Your task to perform on an android device: toggle notifications settings in the gmail app Image 0: 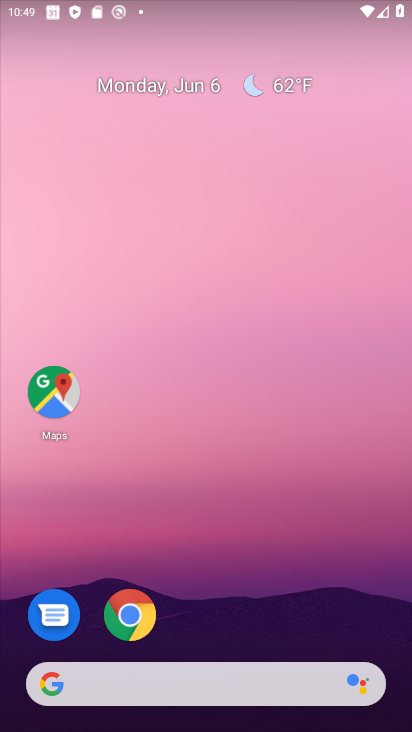
Step 0: drag from (246, 690) to (159, 216)
Your task to perform on an android device: toggle notifications settings in the gmail app Image 1: 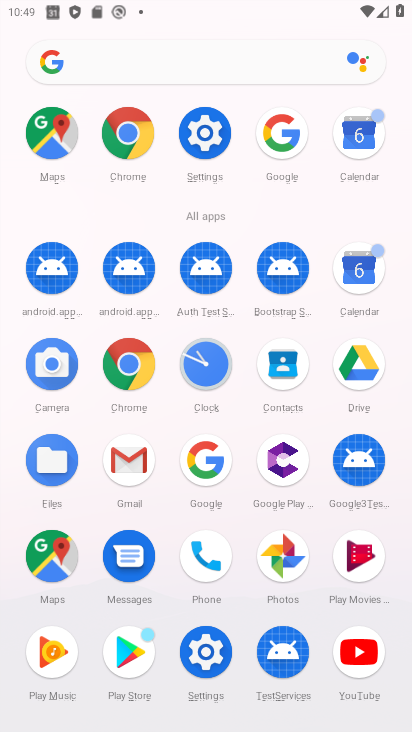
Step 1: click (130, 464)
Your task to perform on an android device: toggle notifications settings in the gmail app Image 2: 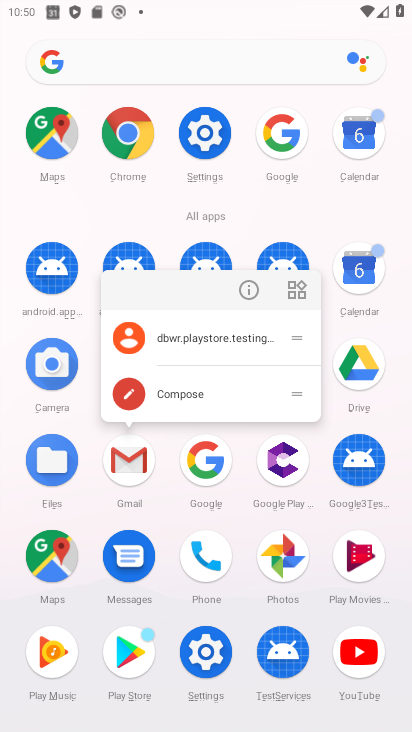
Step 2: click (213, 330)
Your task to perform on an android device: toggle notifications settings in the gmail app Image 3: 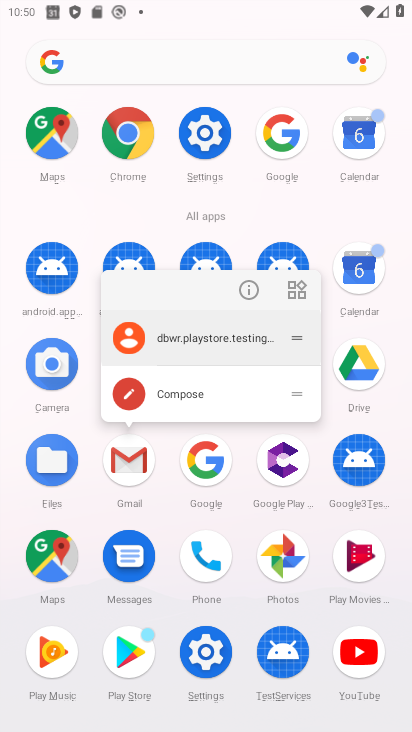
Step 3: click (213, 330)
Your task to perform on an android device: toggle notifications settings in the gmail app Image 4: 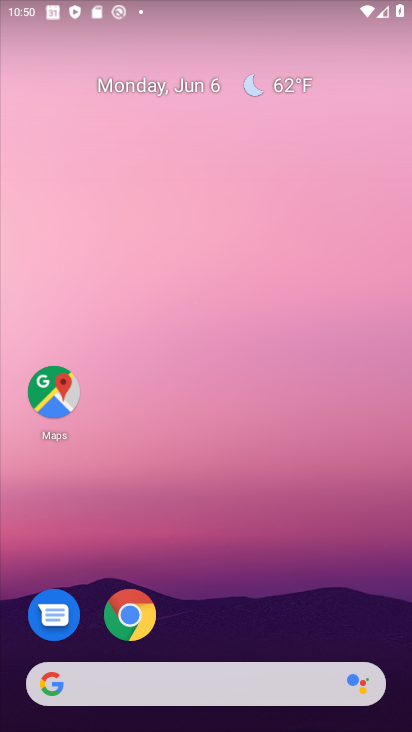
Step 4: drag from (254, 689) to (186, 189)
Your task to perform on an android device: toggle notifications settings in the gmail app Image 5: 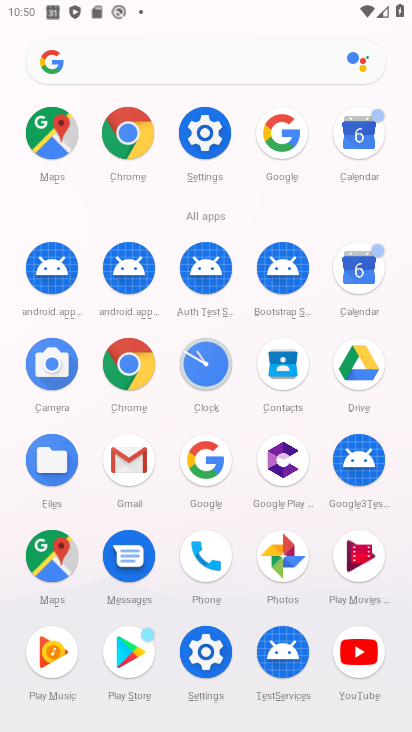
Step 5: click (116, 457)
Your task to perform on an android device: toggle notifications settings in the gmail app Image 6: 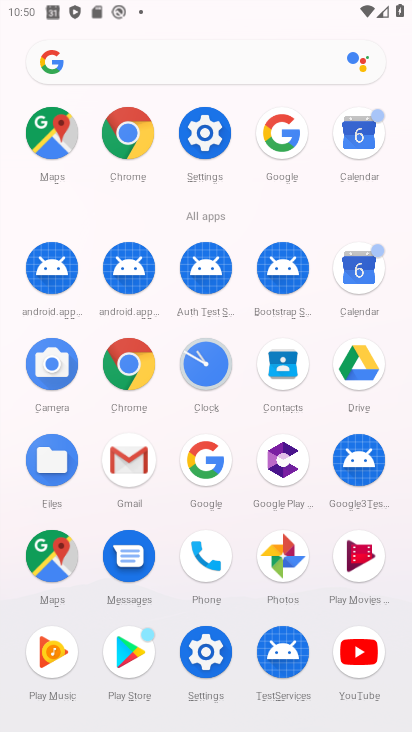
Step 6: click (132, 451)
Your task to perform on an android device: toggle notifications settings in the gmail app Image 7: 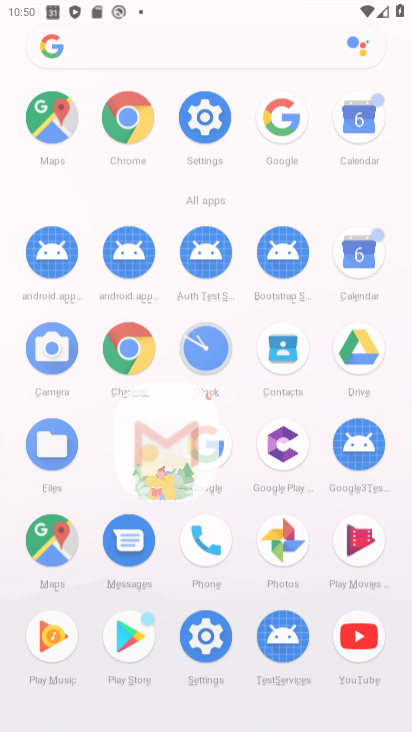
Step 7: click (131, 451)
Your task to perform on an android device: toggle notifications settings in the gmail app Image 8: 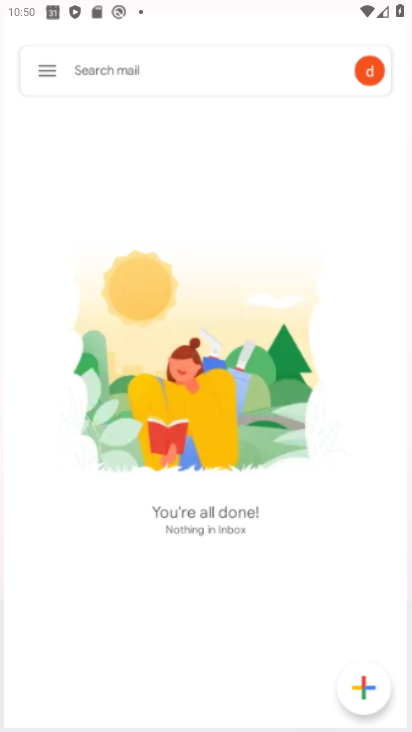
Step 8: click (131, 451)
Your task to perform on an android device: toggle notifications settings in the gmail app Image 9: 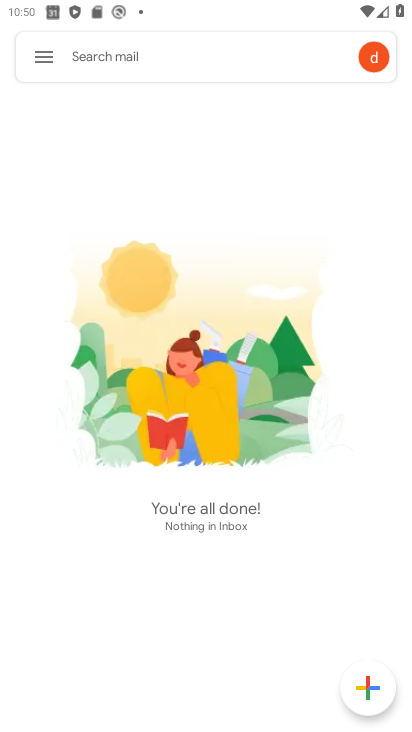
Step 9: click (128, 452)
Your task to perform on an android device: toggle notifications settings in the gmail app Image 10: 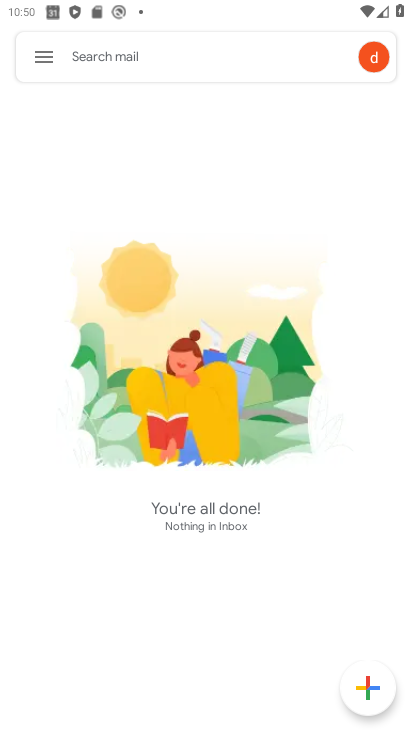
Step 10: click (36, 60)
Your task to perform on an android device: toggle notifications settings in the gmail app Image 11: 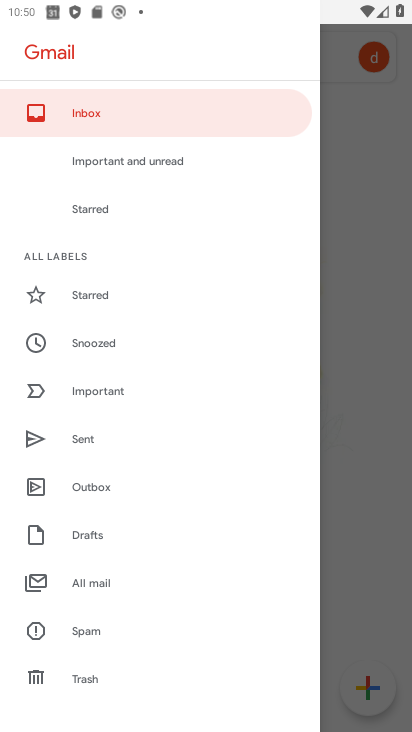
Step 11: drag from (110, 579) to (92, 281)
Your task to perform on an android device: toggle notifications settings in the gmail app Image 12: 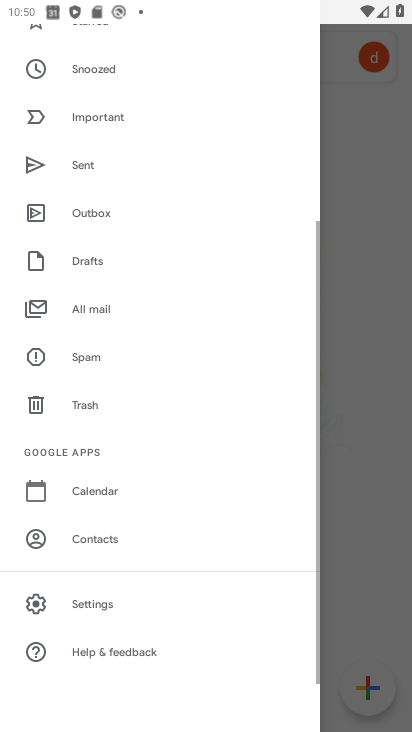
Step 12: drag from (105, 435) to (83, 255)
Your task to perform on an android device: toggle notifications settings in the gmail app Image 13: 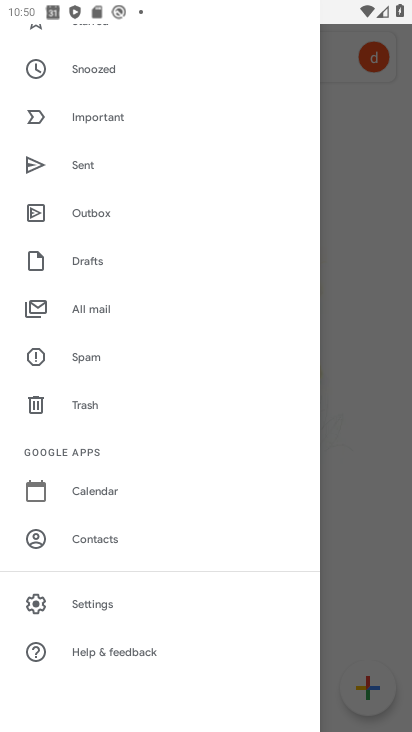
Step 13: click (96, 599)
Your task to perform on an android device: toggle notifications settings in the gmail app Image 14: 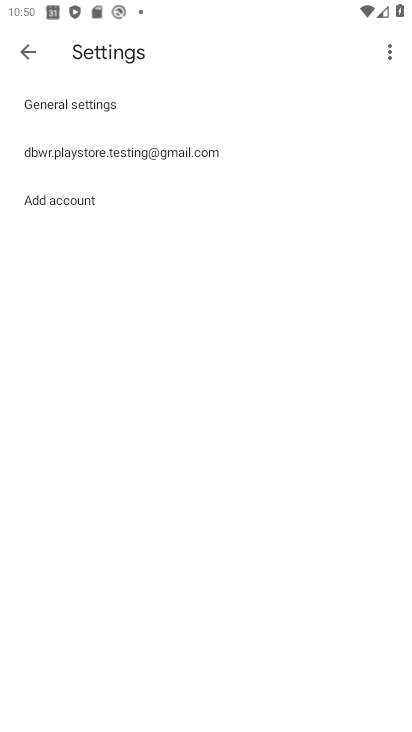
Step 14: click (78, 148)
Your task to perform on an android device: toggle notifications settings in the gmail app Image 15: 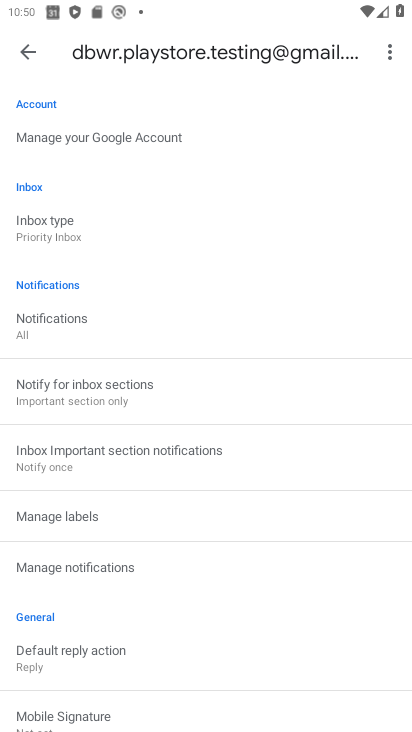
Step 15: click (38, 323)
Your task to perform on an android device: toggle notifications settings in the gmail app Image 16: 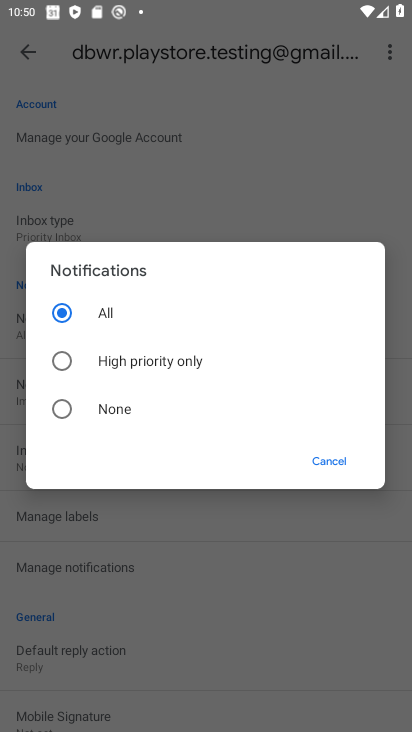
Step 16: click (55, 364)
Your task to perform on an android device: toggle notifications settings in the gmail app Image 17: 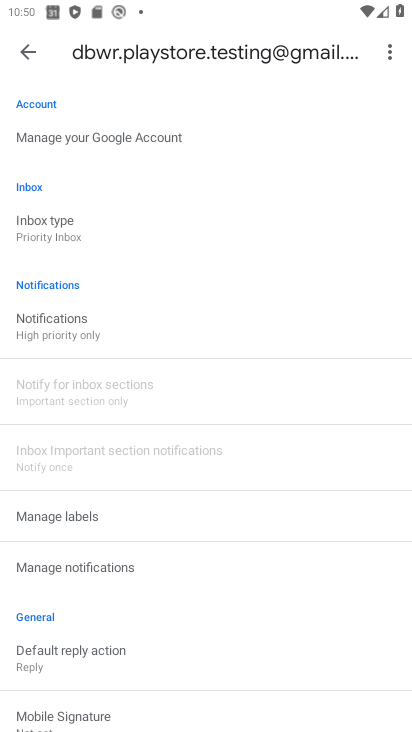
Step 17: task complete